Your task to perform on an android device: turn pop-ups on in chrome Image 0: 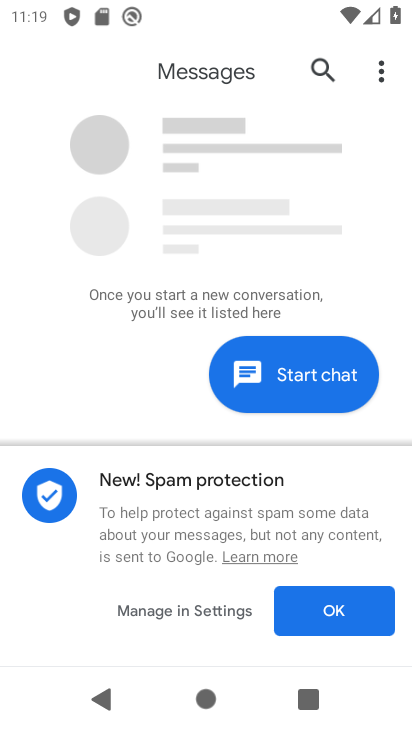
Step 0: press home button
Your task to perform on an android device: turn pop-ups on in chrome Image 1: 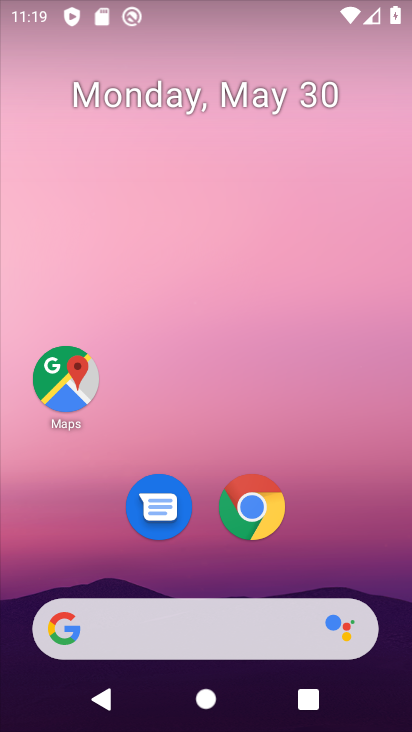
Step 1: click (265, 495)
Your task to perform on an android device: turn pop-ups on in chrome Image 2: 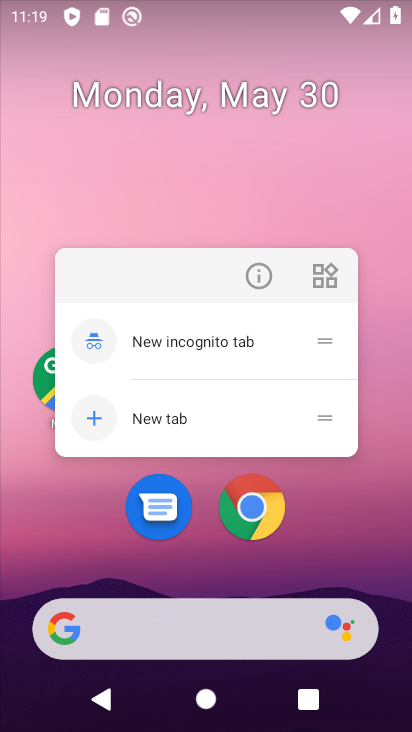
Step 2: click (265, 495)
Your task to perform on an android device: turn pop-ups on in chrome Image 3: 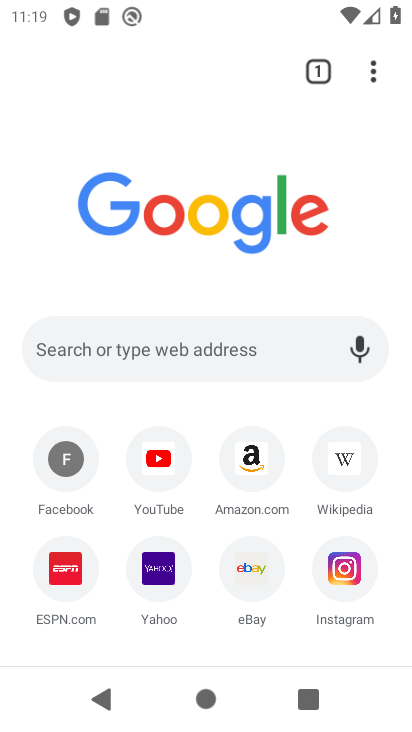
Step 3: drag from (374, 78) to (188, 512)
Your task to perform on an android device: turn pop-ups on in chrome Image 4: 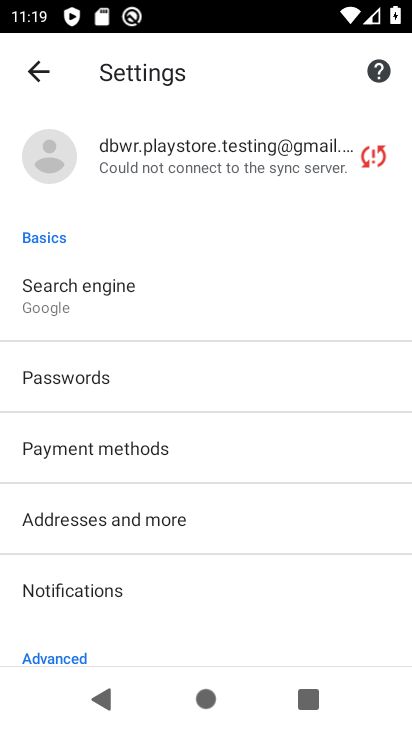
Step 4: drag from (384, 640) to (306, 274)
Your task to perform on an android device: turn pop-ups on in chrome Image 5: 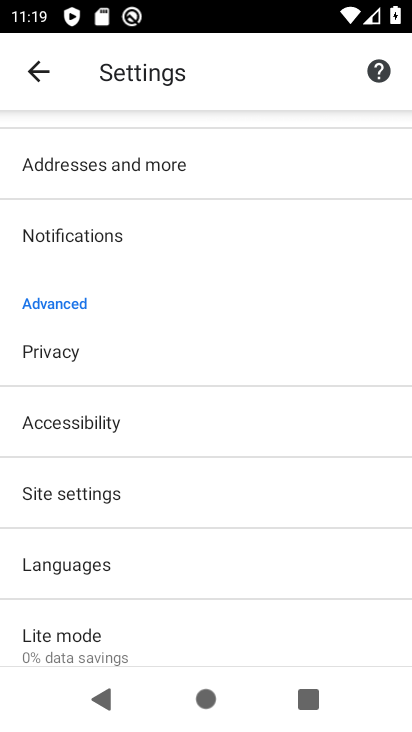
Step 5: click (104, 499)
Your task to perform on an android device: turn pop-ups on in chrome Image 6: 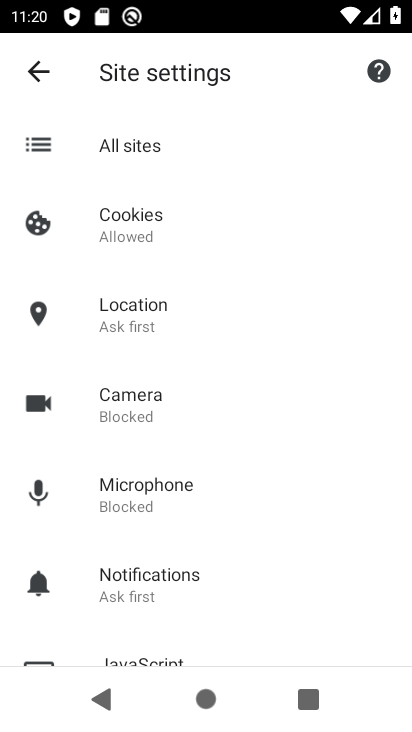
Step 6: drag from (334, 623) to (288, 351)
Your task to perform on an android device: turn pop-ups on in chrome Image 7: 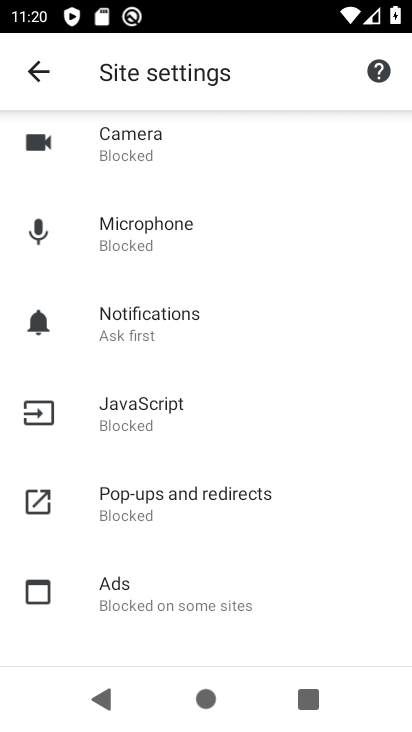
Step 7: click (203, 485)
Your task to perform on an android device: turn pop-ups on in chrome Image 8: 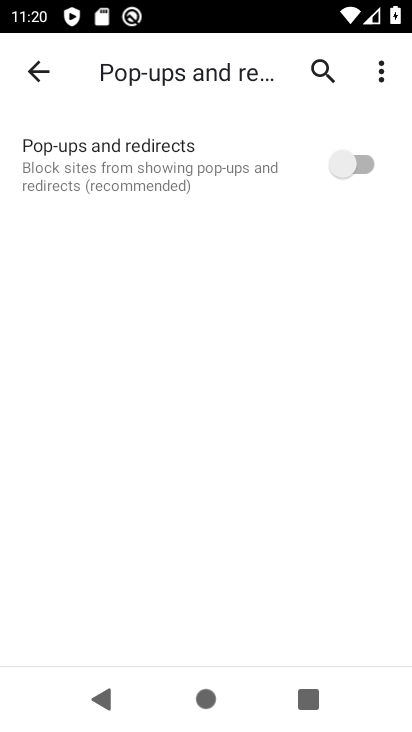
Step 8: click (366, 169)
Your task to perform on an android device: turn pop-ups on in chrome Image 9: 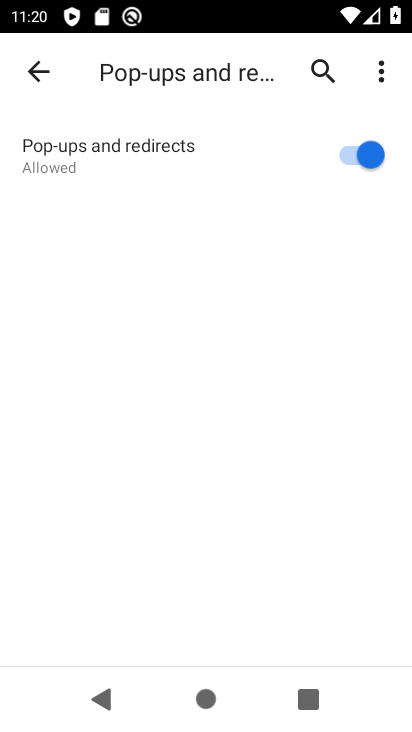
Step 9: task complete